Your task to perform on an android device: search for starred emails in the gmail app Image 0: 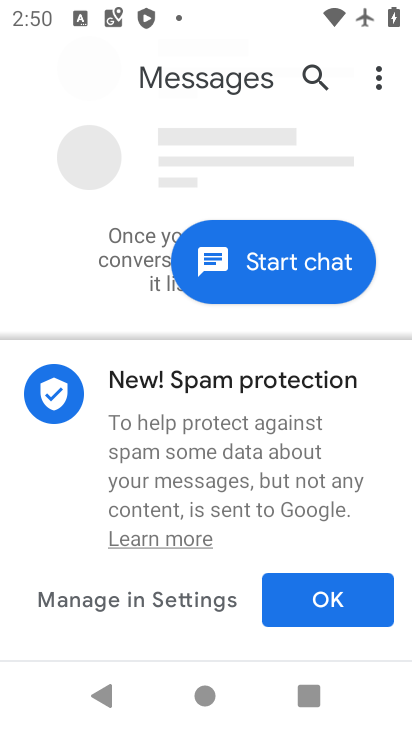
Step 0: press home button
Your task to perform on an android device: search for starred emails in the gmail app Image 1: 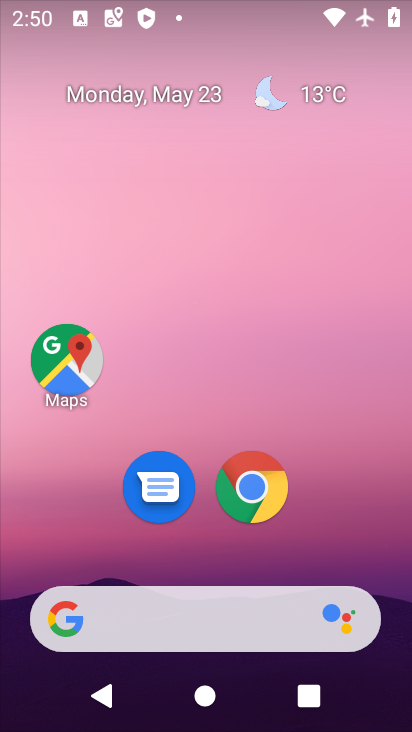
Step 1: drag from (399, 615) to (295, 162)
Your task to perform on an android device: search for starred emails in the gmail app Image 2: 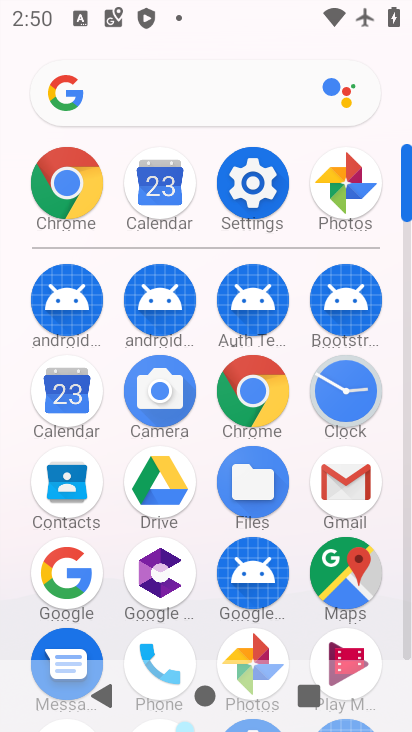
Step 2: click (410, 634)
Your task to perform on an android device: search for starred emails in the gmail app Image 3: 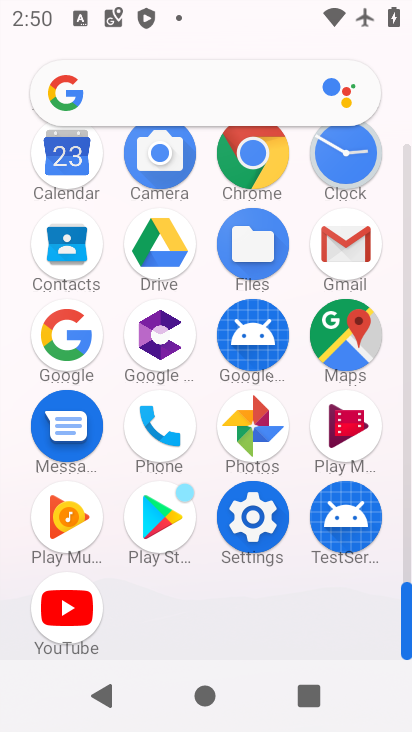
Step 3: click (342, 239)
Your task to perform on an android device: search for starred emails in the gmail app Image 4: 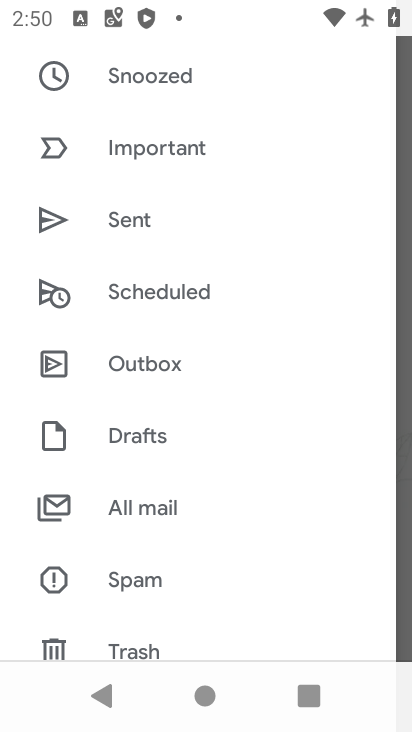
Step 4: drag from (229, 93) to (204, 522)
Your task to perform on an android device: search for starred emails in the gmail app Image 5: 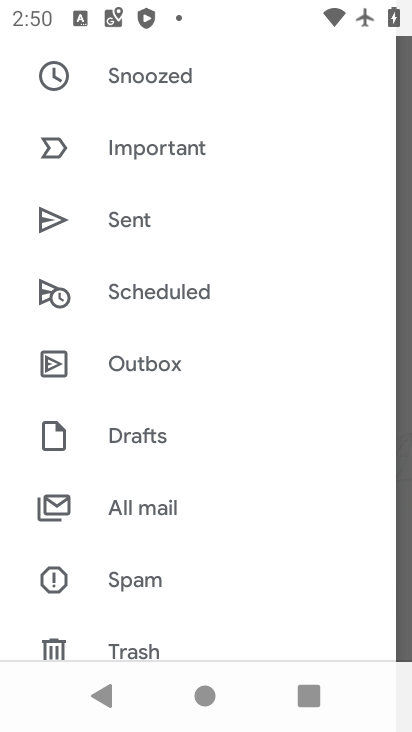
Step 5: drag from (205, 194) to (207, 539)
Your task to perform on an android device: search for starred emails in the gmail app Image 6: 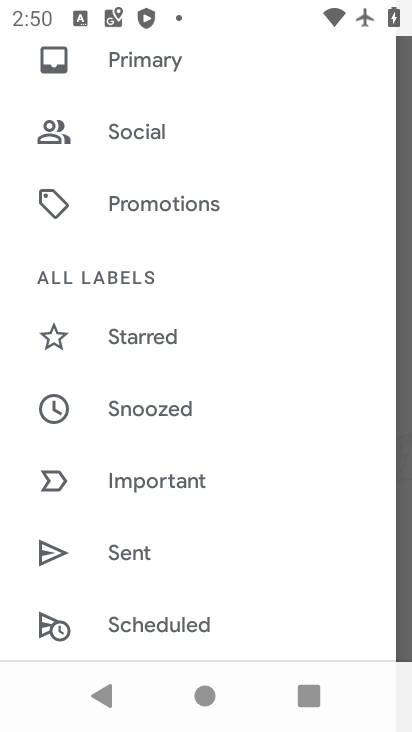
Step 6: click (150, 324)
Your task to perform on an android device: search for starred emails in the gmail app Image 7: 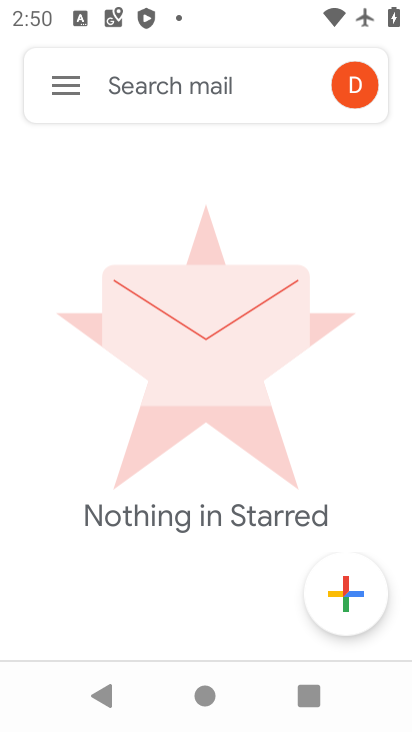
Step 7: task complete